Your task to perform on an android device: Go to settings Image 0: 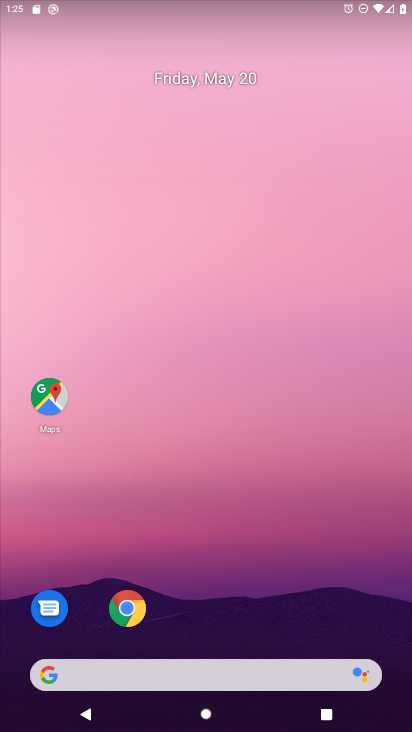
Step 0: press home button
Your task to perform on an android device: Go to settings Image 1: 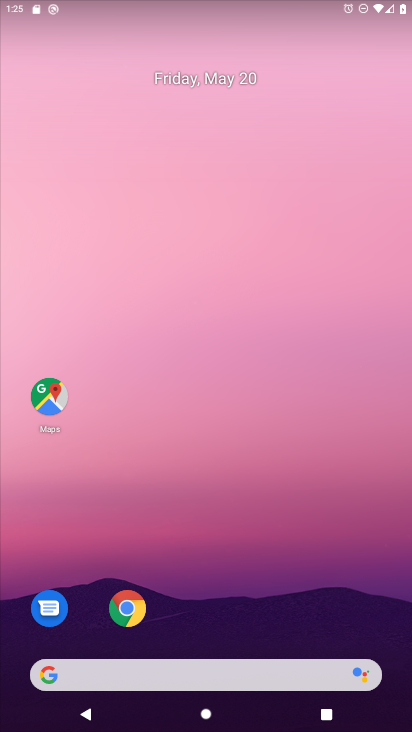
Step 1: drag from (206, 623) to (241, 44)
Your task to perform on an android device: Go to settings Image 2: 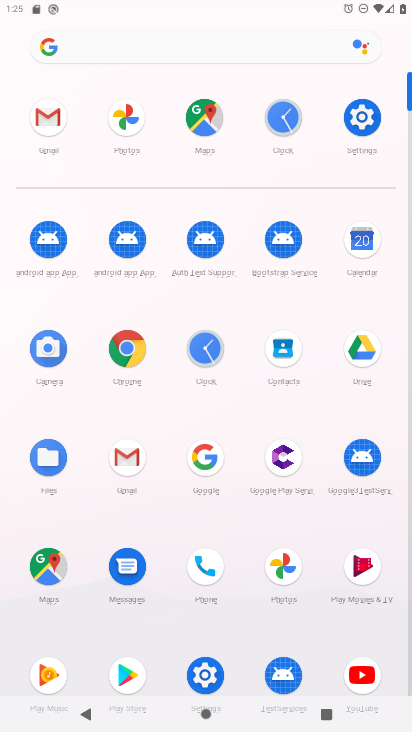
Step 2: click (347, 121)
Your task to perform on an android device: Go to settings Image 3: 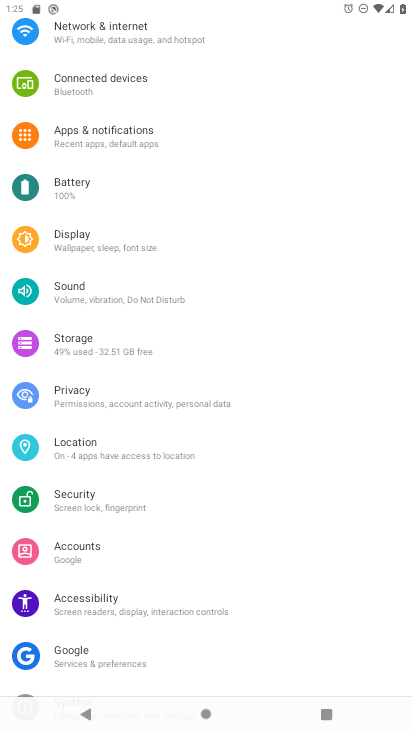
Step 3: task complete